Your task to perform on an android device: Open CNN.com Image 0: 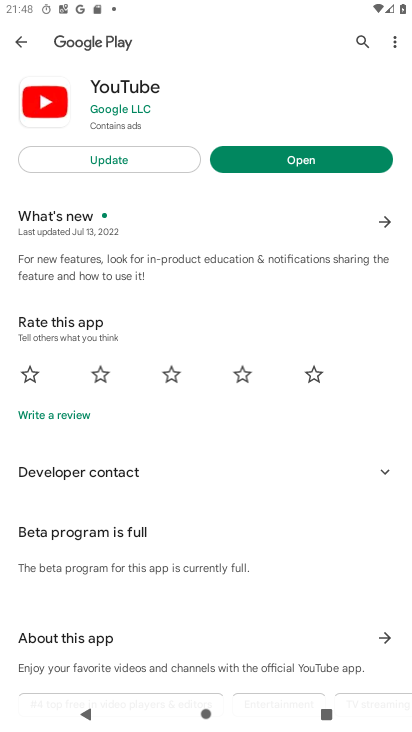
Step 0: press home button
Your task to perform on an android device: Open CNN.com Image 1: 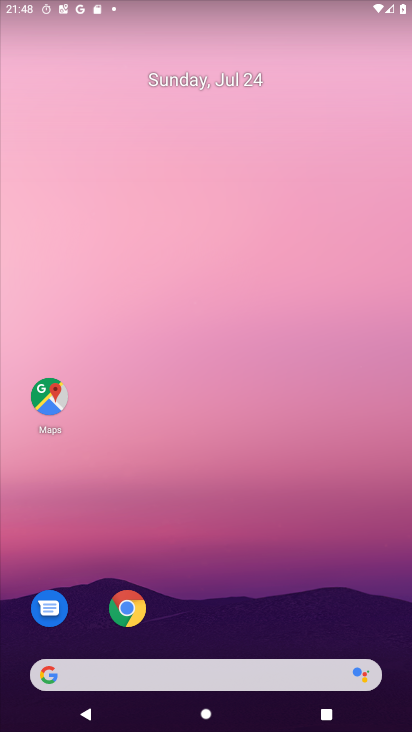
Step 1: click (119, 662)
Your task to perform on an android device: Open CNN.com Image 2: 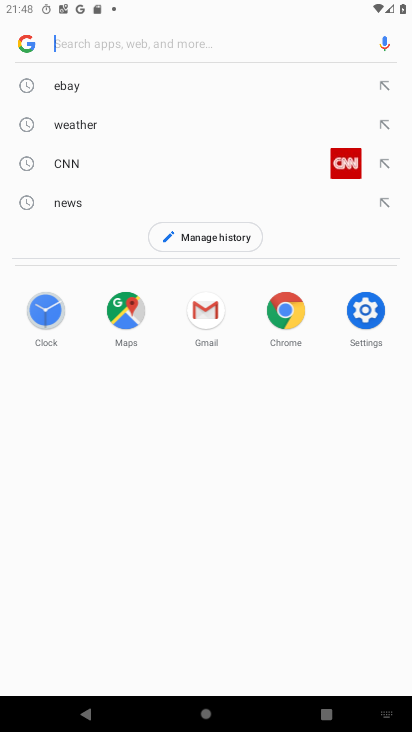
Step 2: click (61, 160)
Your task to perform on an android device: Open CNN.com Image 3: 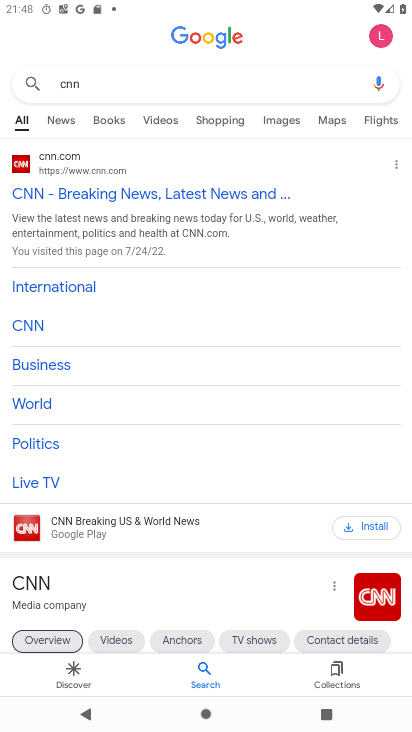
Step 3: click (56, 182)
Your task to perform on an android device: Open CNN.com Image 4: 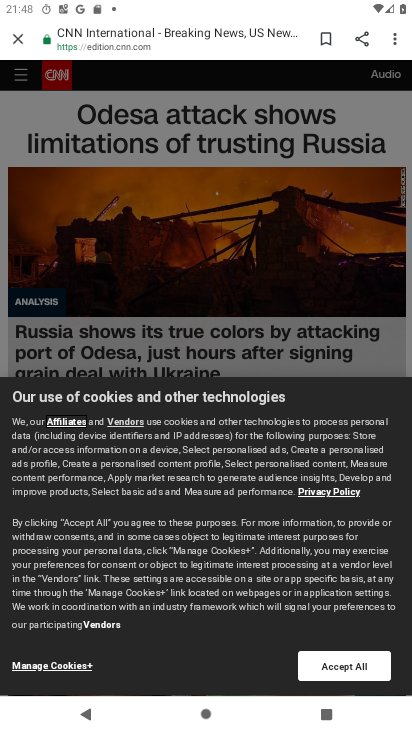
Step 4: task complete